Your task to perform on an android device: check the backup settings in the google photos Image 0: 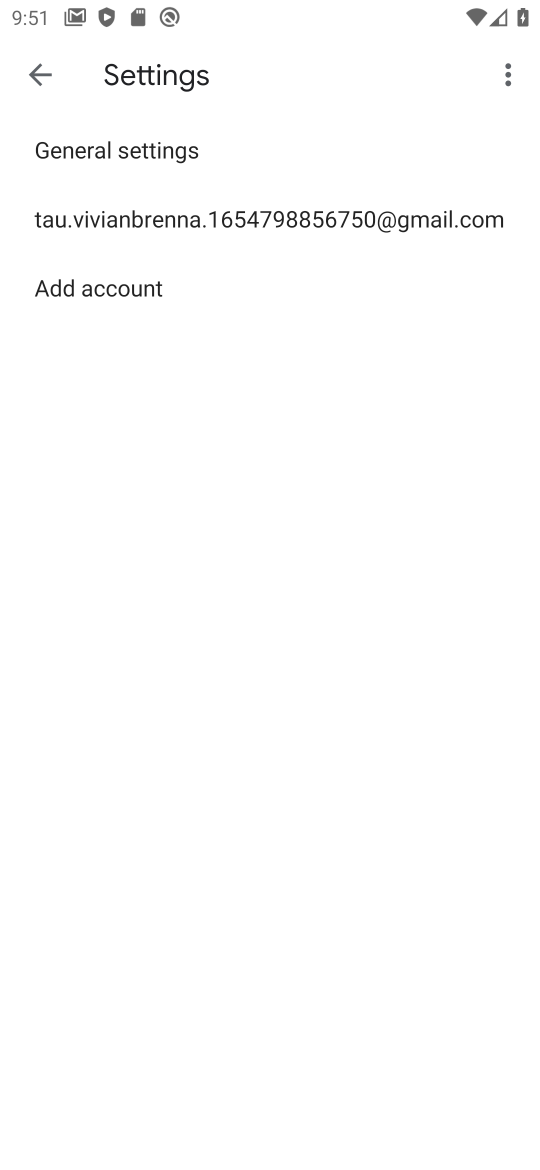
Step 0: press home button
Your task to perform on an android device: check the backup settings in the google photos Image 1: 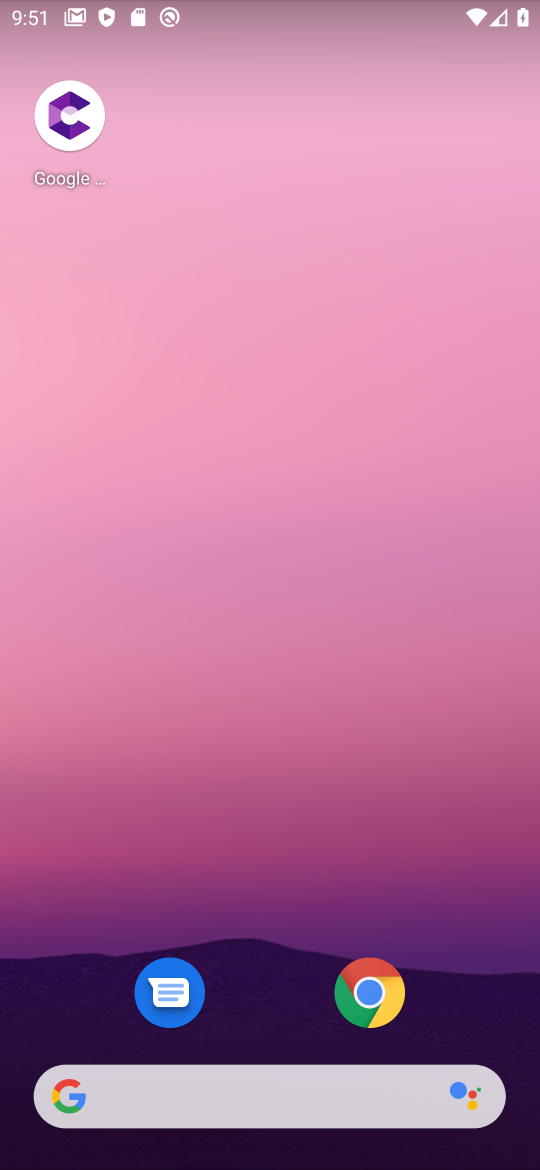
Step 1: drag from (174, 872) to (116, 126)
Your task to perform on an android device: check the backup settings in the google photos Image 2: 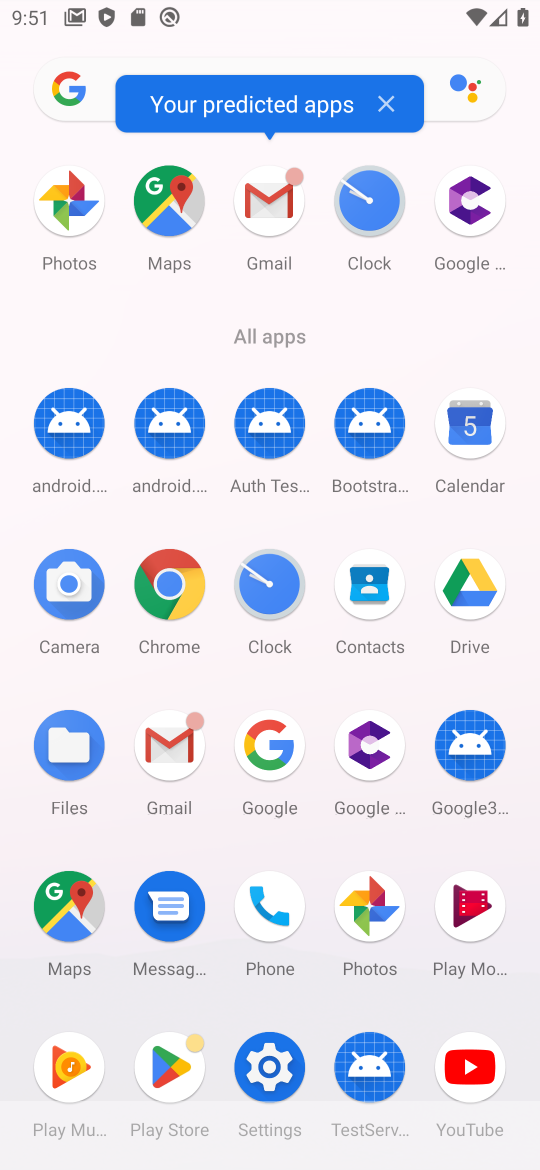
Step 2: click (361, 903)
Your task to perform on an android device: check the backup settings in the google photos Image 3: 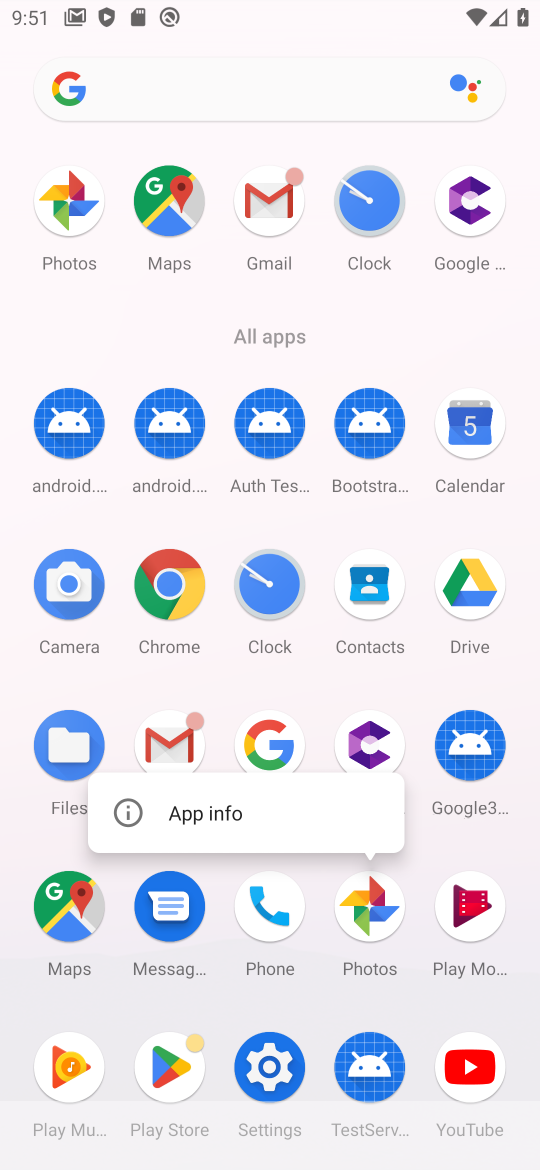
Step 3: click (370, 917)
Your task to perform on an android device: check the backup settings in the google photos Image 4: 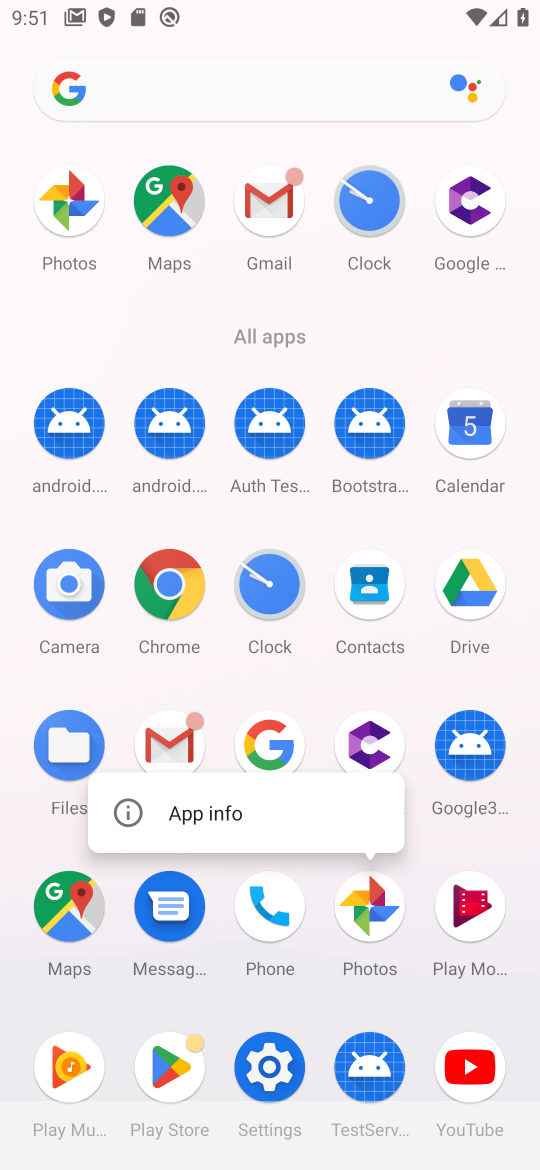
Step 4: click (361, 895)
Your task to perform on an android device: check the backup settings in the google photos Image 5: 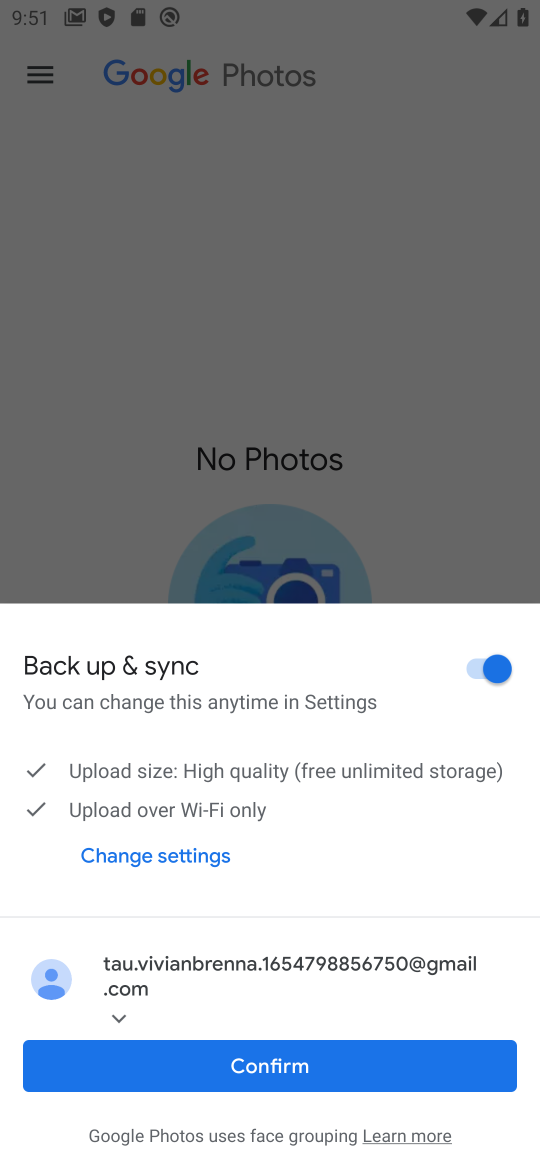
Step 5: click (273, 1057)
Your task to perform on an android device: check the backup settings in the google photos Image 6: 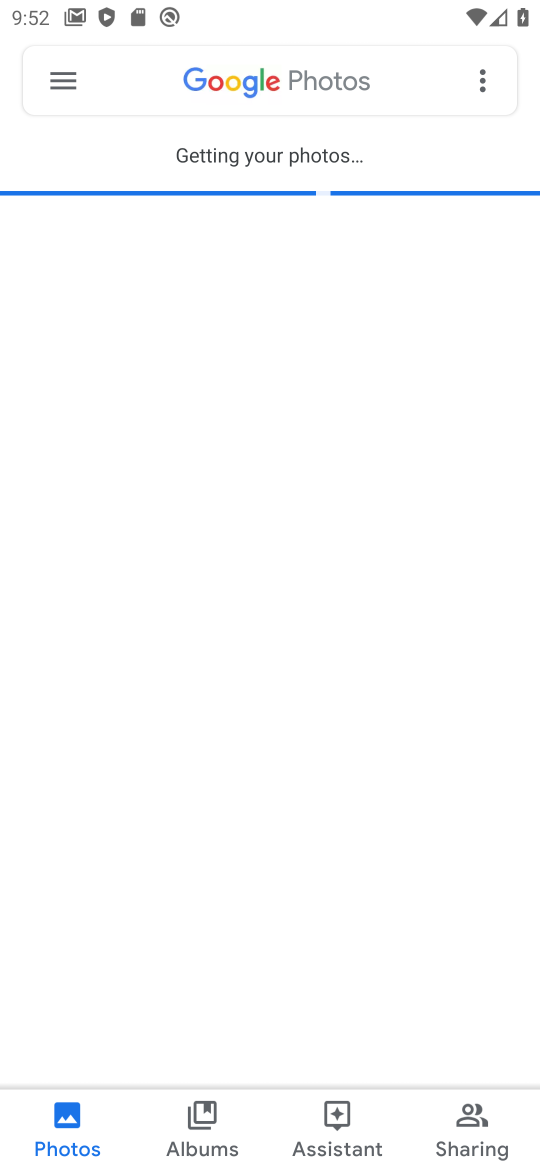
Step 6: click (44, 74)
Your task to perform on an android device: check the backup settings in the google photos Image 7: 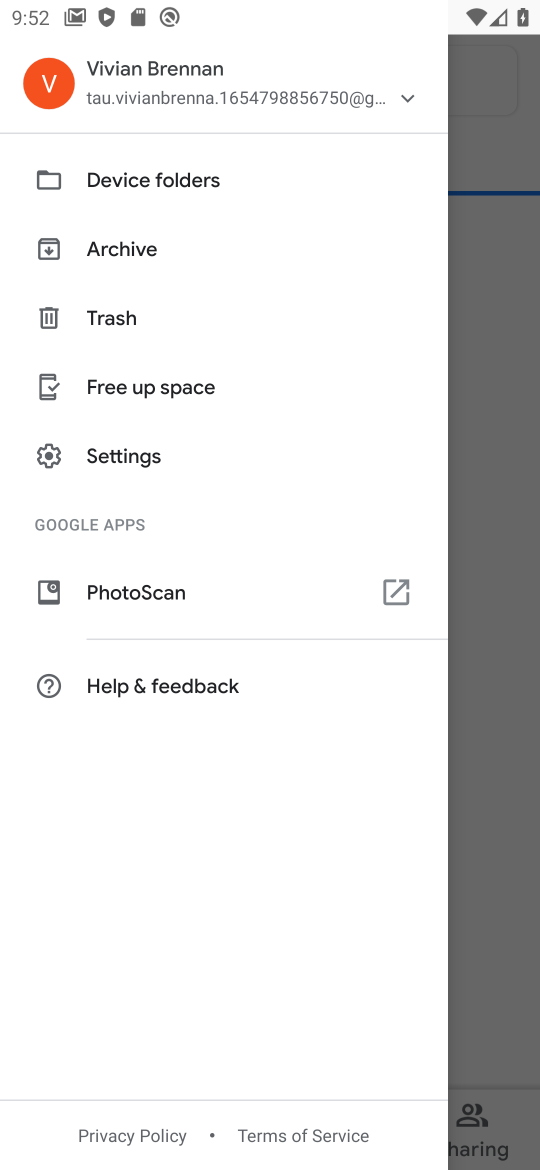
Step 7: click (123, 466)
Your task to perform on an android device: check the backup settings in the google photos Image 8: 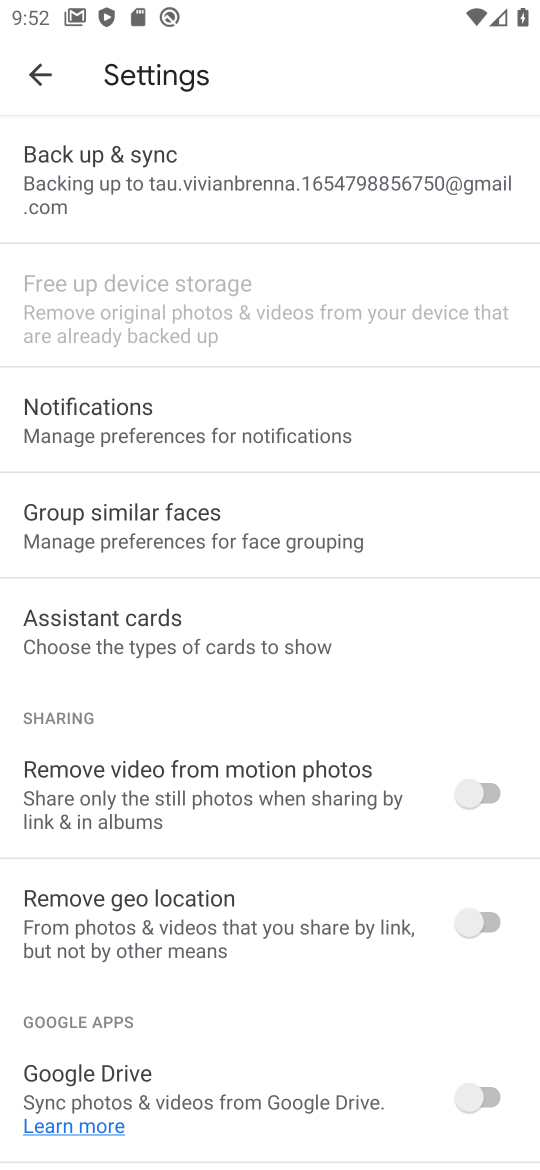
Step 8: click (143, 157)
Your task to perform on an android device: check the backup settings in the google photos Image 9: 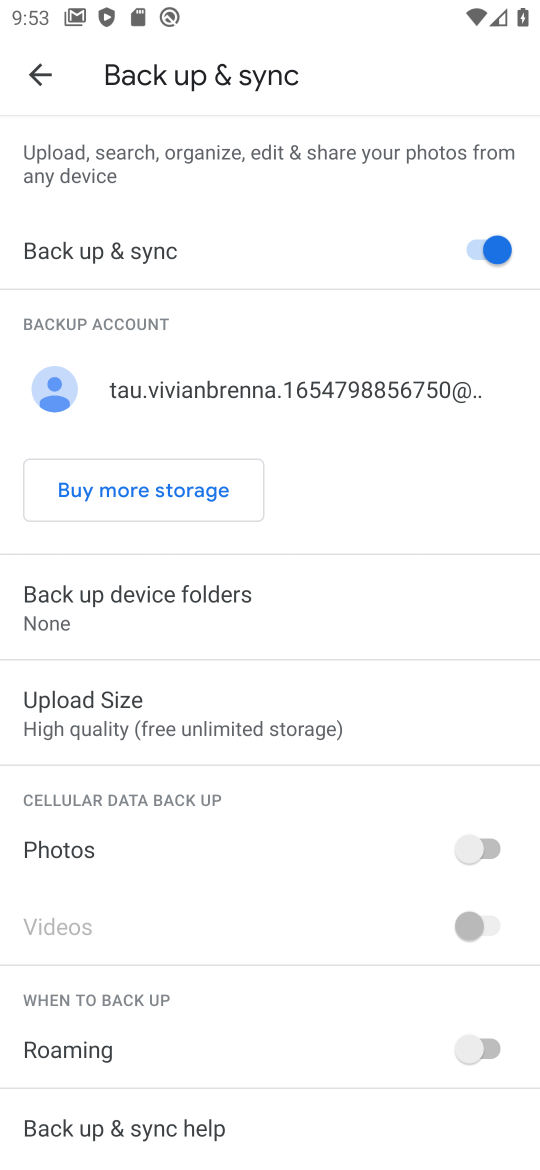
Step 9: task complete